Your task to perform on an android device: What's the weather? Image 0: 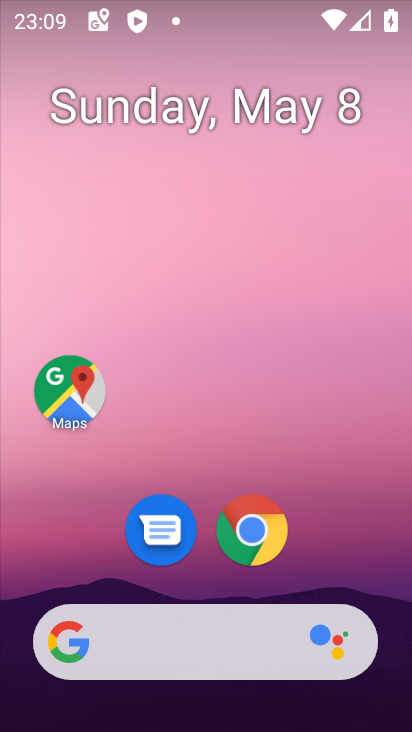
Step 0: drag from (373, 558) to (381, 149)
Your task to perform on an android device: What's the weather? Image 1: 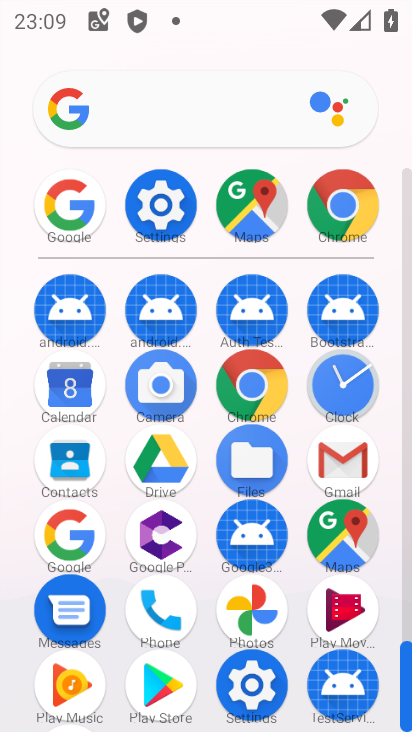
Step 1: click (252, 366)
Your task to perform on an android device: What's the weather? Image 2: 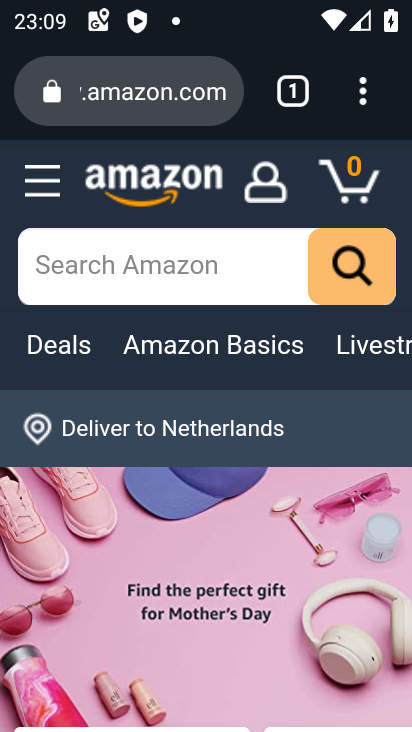
Step 2: click (180, 90)
Your task to perform on an android device: What's the weather? Image 3: 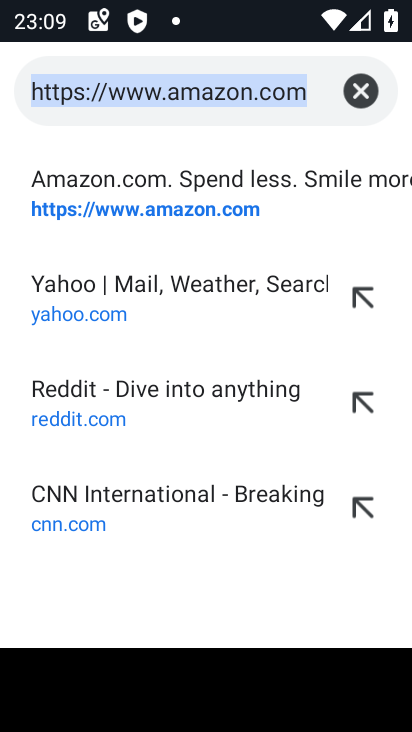
Step 3: click (355, 95)
Your task to perform on an android device: What's the weather? Image 4: 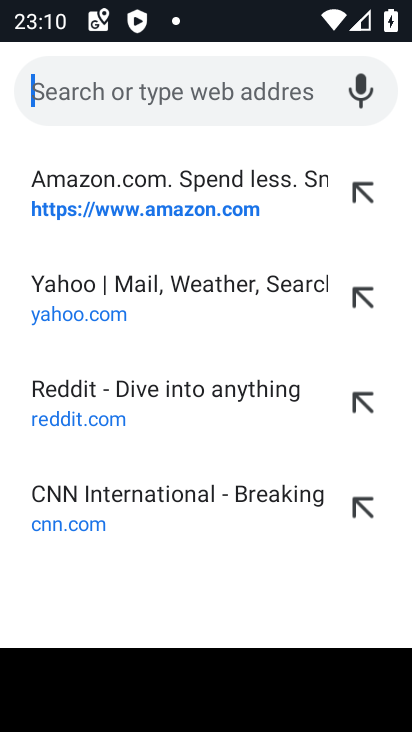
Step 4: type "what's the weather"
Your task to perform on an android device: What's the weather? Image 5: 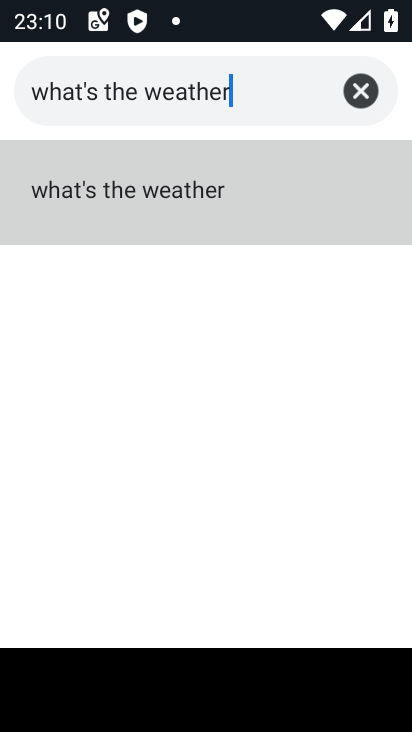
Step 5: click (106, 202)
Your task to perform on an android device: What's the weather? Image 6: 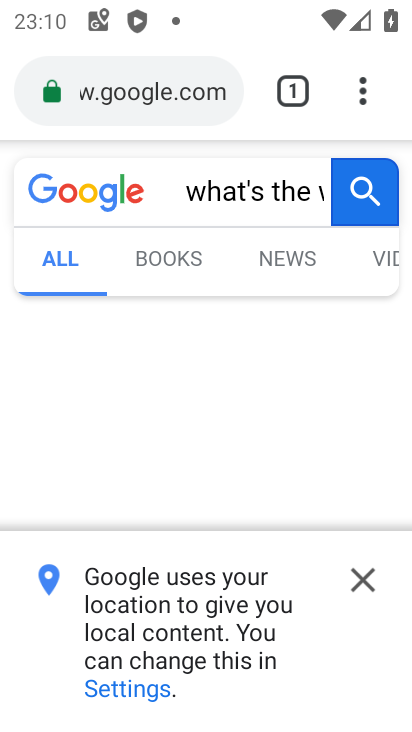
Step 6: click (368, 591)
Your task to perform on an android device: What's the weather? Image 7: 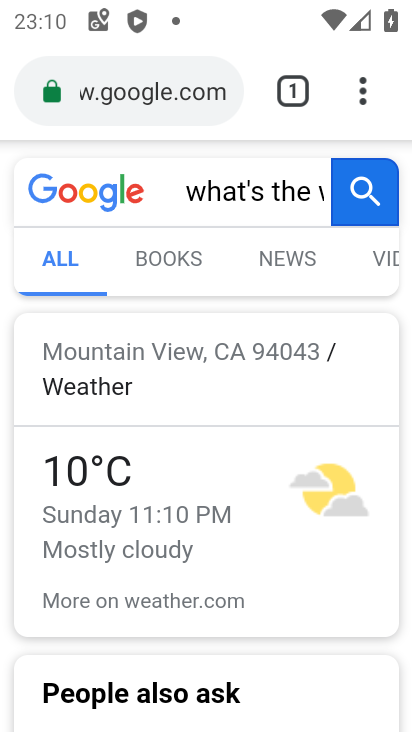
Step 7: task complete